Your task to perform on an android device: search for starred emails in the gmail app Image 0: 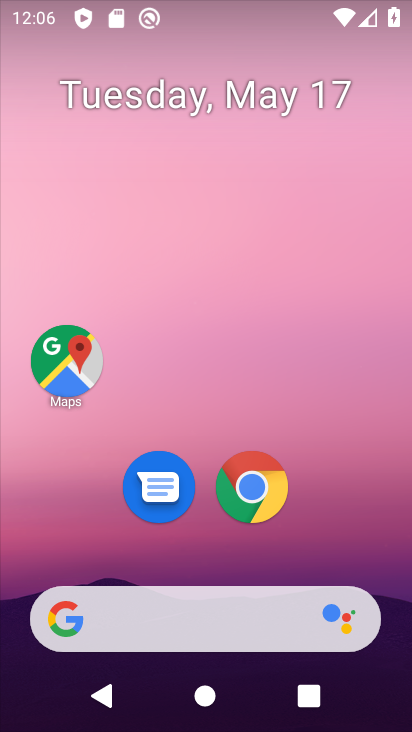
Step 0: drag from (366, 503) to (272, 0)
Your task to perform on an android device: search for starred emails in the gmail app Image 1: 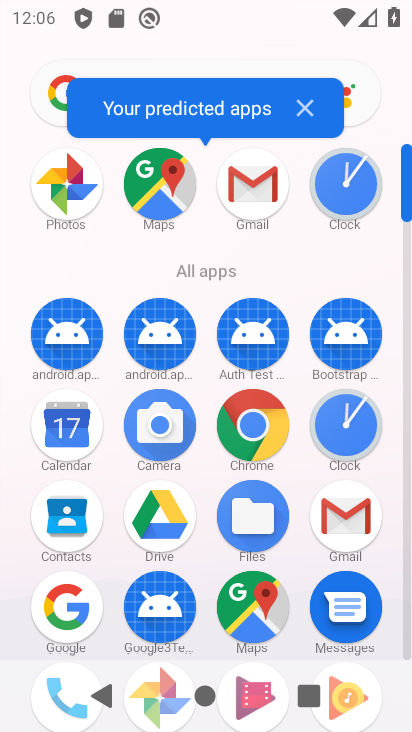
Step 1: drag from (13, 517) to (22, 177)
Your task to perform on an android device: search for starred emails in the gmail app Image 2: 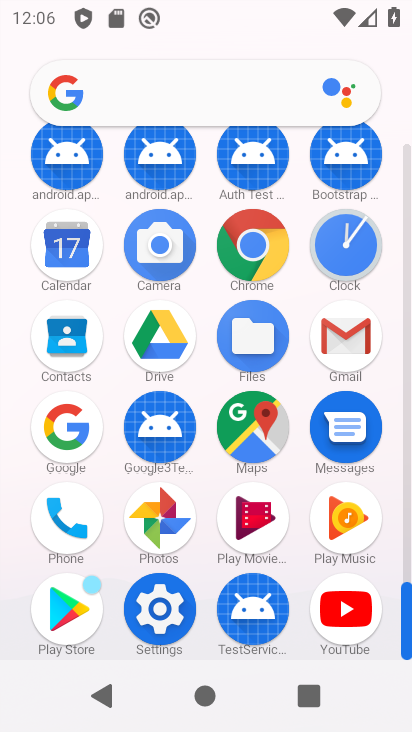
Step 2: drag from (24, 552) to (34, 265)
Your task to perform on an android device: search for starred emails in the gmail app Image 3: 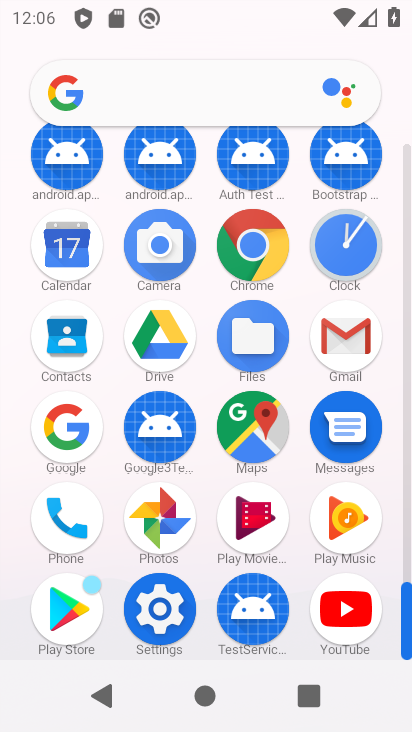
Step 3: click (345, 326)
Your task to perform on an android device: search for starred emails in the gmail app Image 4: 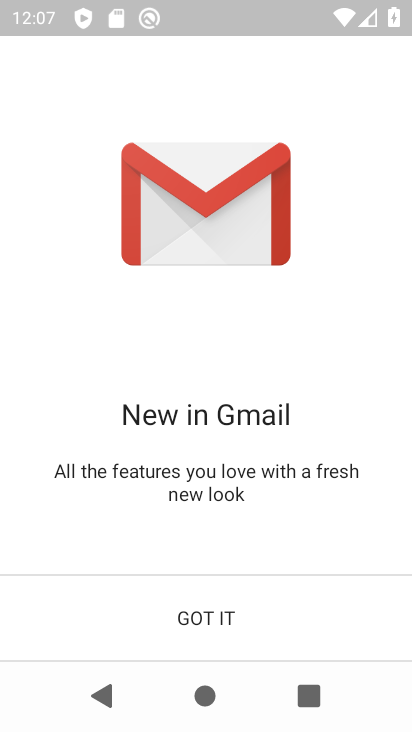
Step 4: click (222, 617)
Your task to perform on an android device: search for starred emails in the gmail app Image 5: 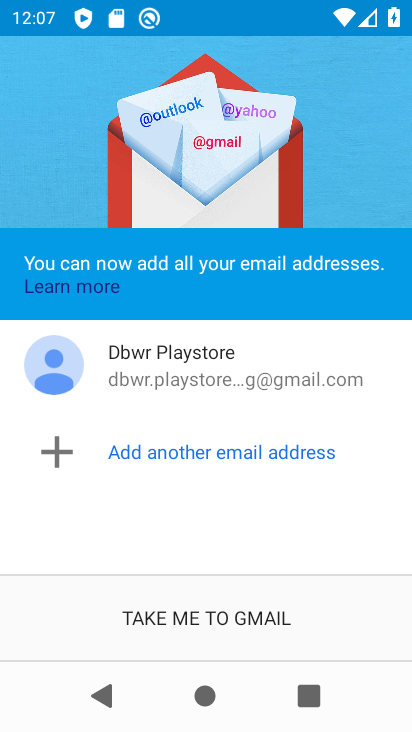
Step 5: click (218, 629)
Your task to perform on an android device: search for starred emails in the gmail app Image 6: 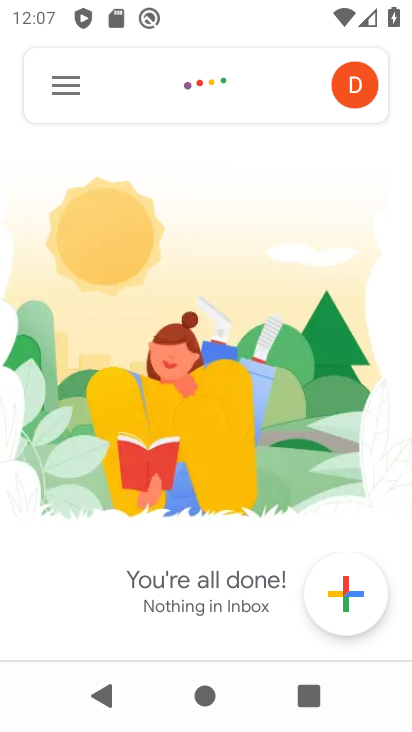
Step 6: click (64, 77)
Your task to perform on an android device: search for starred emails in the gmail app Image 7: 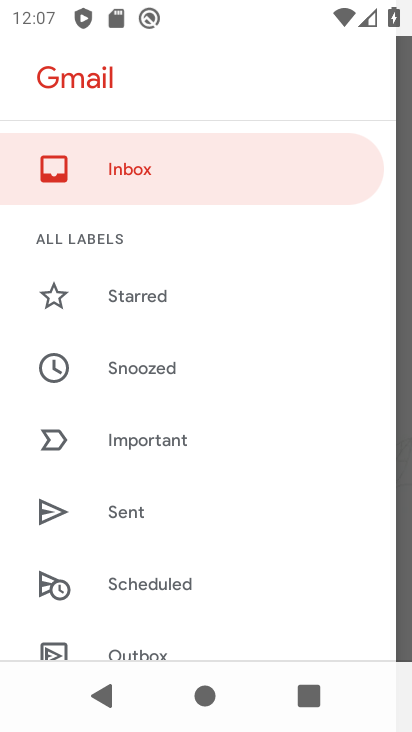
Step 7: click (143, 294)
Your task to perform on an android device: search for starred emails in the gmail app Image 8: 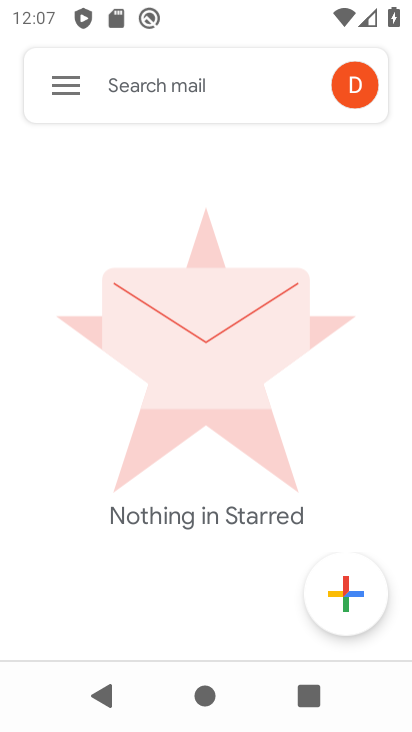
Step 8: click (56, 66)
Your task to perform on an android device: search for starred emails in the gmail app Image 9: 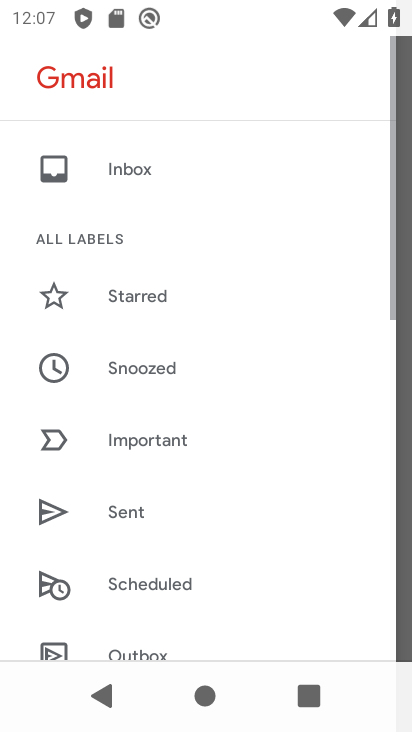
Step 9: drag from (242, 225) to (231, 462)
Your task to perform on an android device: search for starred emails in the gmail app Image 10: 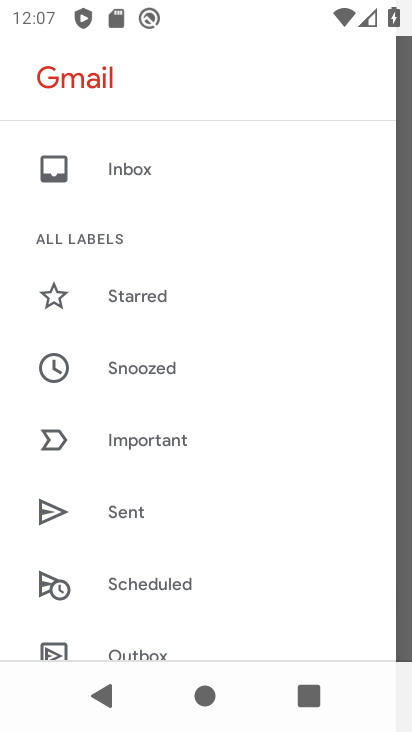
Step 10: click (174, 290)
Your task to perform on an android device: search for starred emails in the gmail app Image 11: 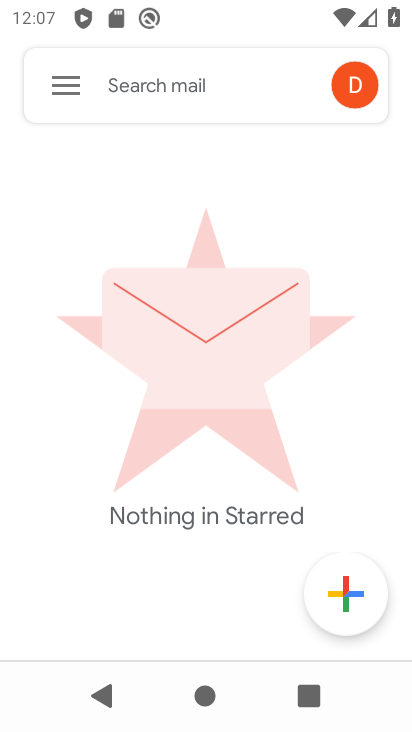
Step 11: task complete